Your task to perform on an android device: Open privacy settings Image 0: 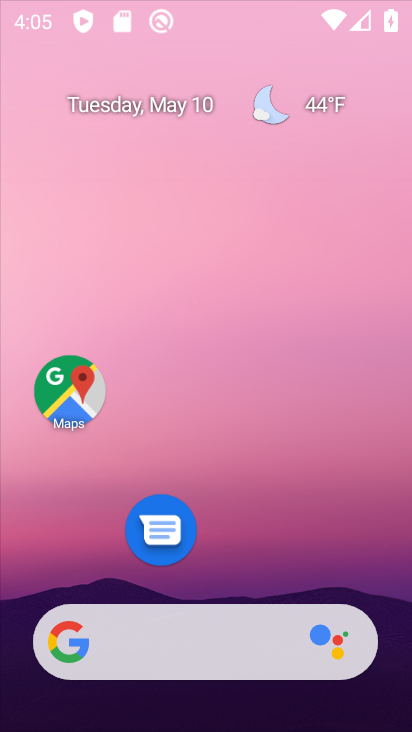
Step 0: drag from (264, 489) to (374, 53)
Your task to perform on an android device: Open privacy settings Image 1: 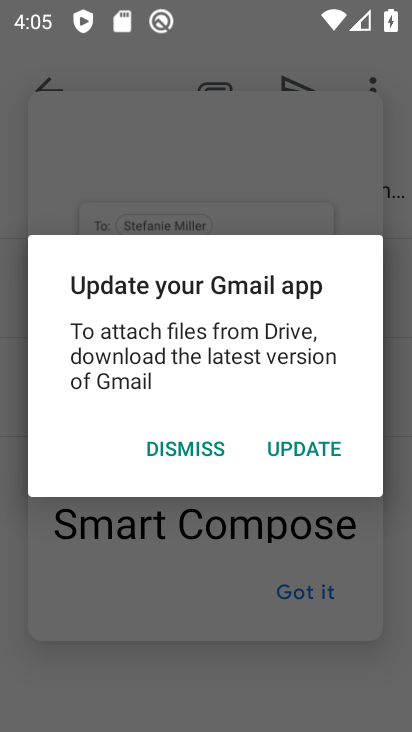
Step 1: click (179, 446)
Your task to perform on an android device: Open privacy settings Image 2: 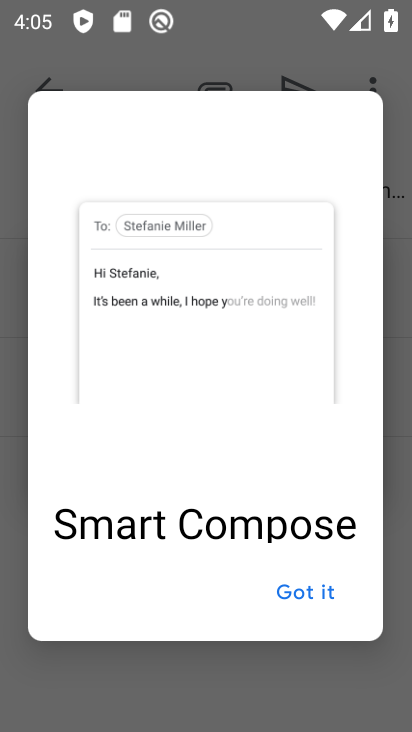
Step 2: click (290, 590)
Your task to perform on an android device: Open privacy settings Image 3: 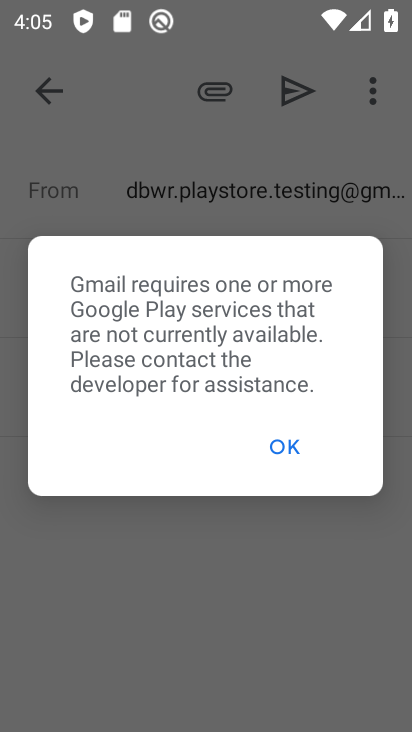
Step 3: click (280, 447)
Your task to perform on an android device: Open privacy settings Image 4: 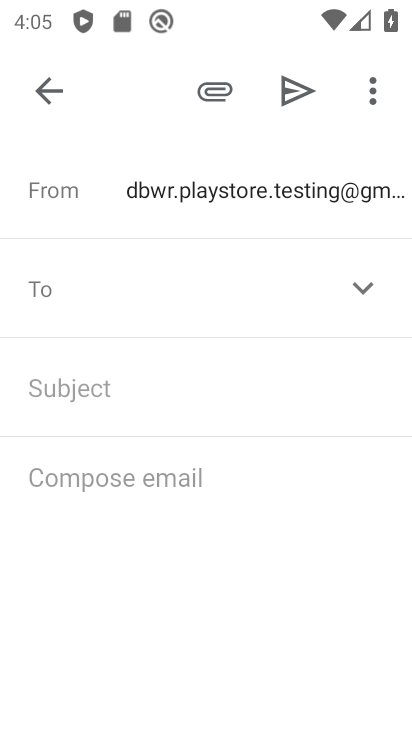
Step 4: press back button
Your task to perform on an android device: Open privacy settings Image 5: 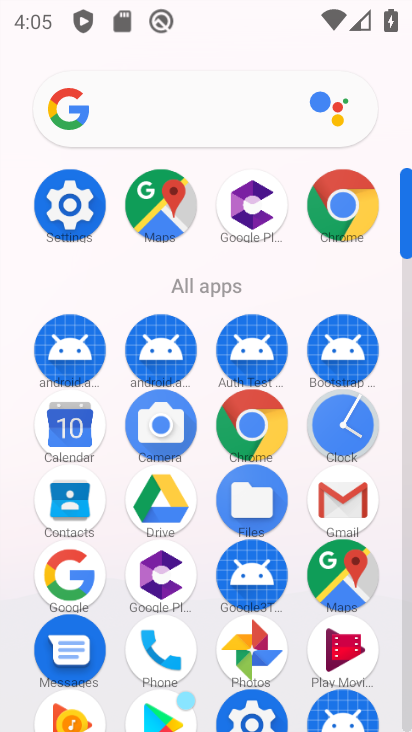
Step 5: click (91, 195)
Your task to perform on an android device: Open privacy settings Image 6: 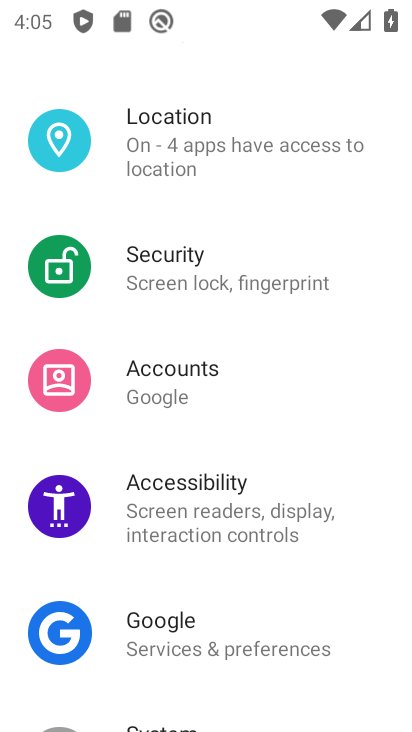
Step 6: drag from (196, 212) to (205, 699)
Your task to perform on an android device: Open privacy settings Image 7: 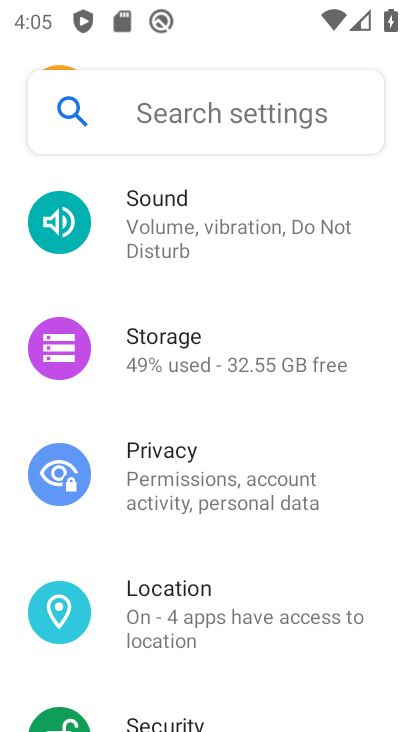
Step 7: click (165, 480)
Your task to perform on an android device: Open privacy settings Image 8: 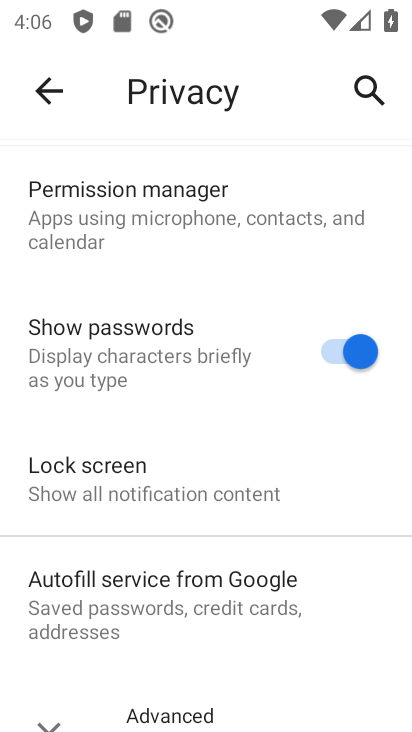
Step 8: task complete